Your task to perform on an android device: Open Google Chrome and open the bookmarks view Image 0: 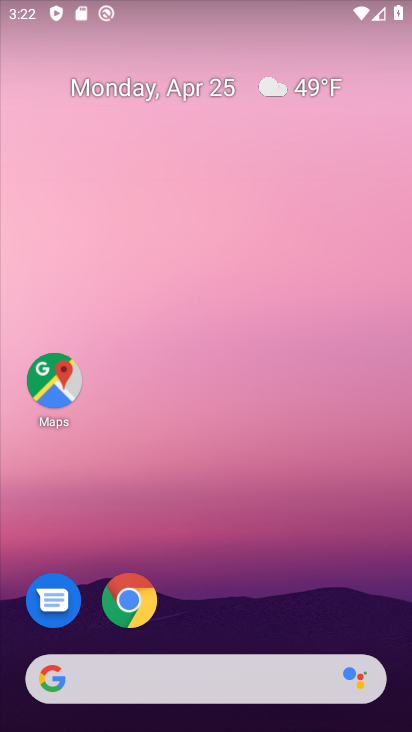
Step 0: click (135, 583)
Your task to perform on an android device: Open Google Chrome and open the bookmarks view Image 1: 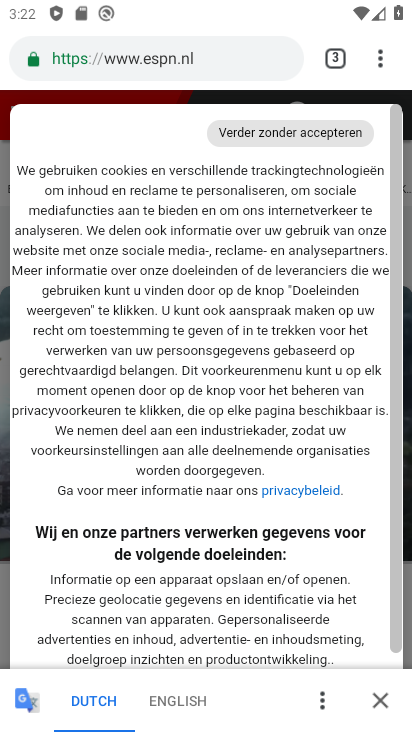
Step 1: click (380, 55)
Your task to perform on an android device: Open Google Chrome and open the bookmarks view Image 2: 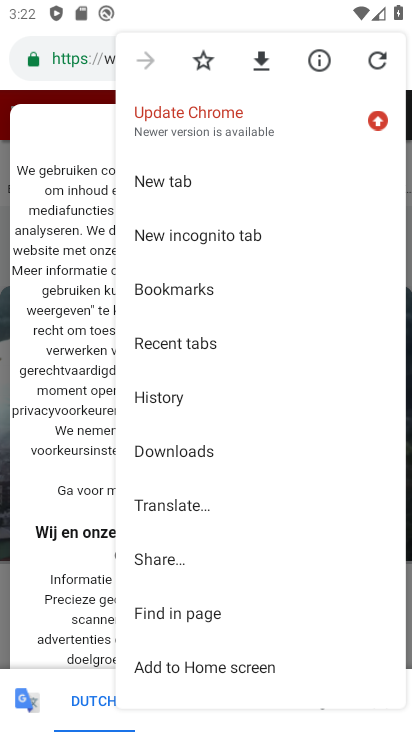
Step 2: click (184, 285)
Your task to perform on an android device: Open Google Chrome and open the bookmarks view Image 3: 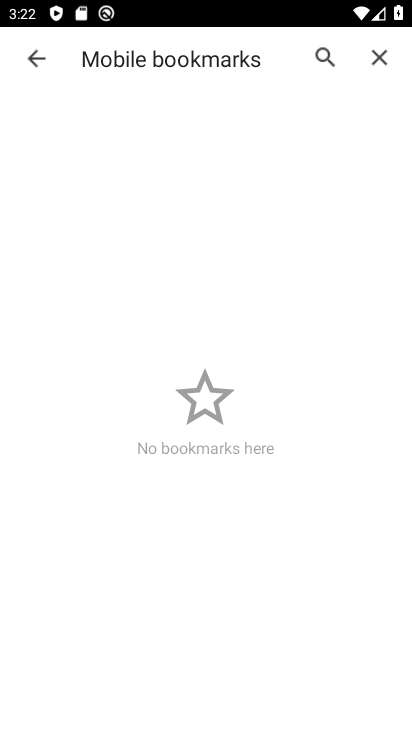
Step 3: task complete